Your task to perform on an android device: Show me recent news Image 0: 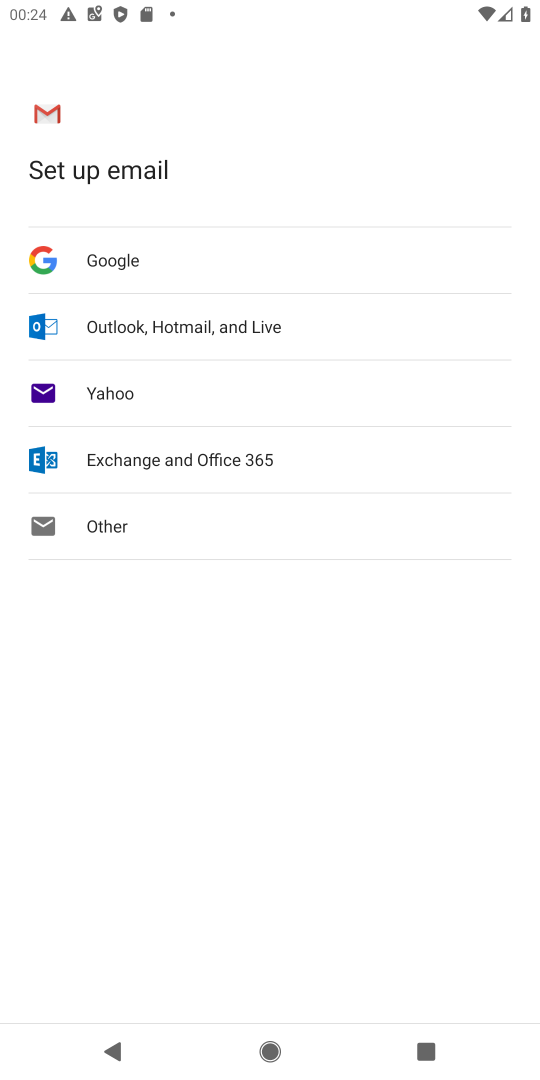
Step 0: press home button
Your task to perform on an android device: Show me recent news Image 1: 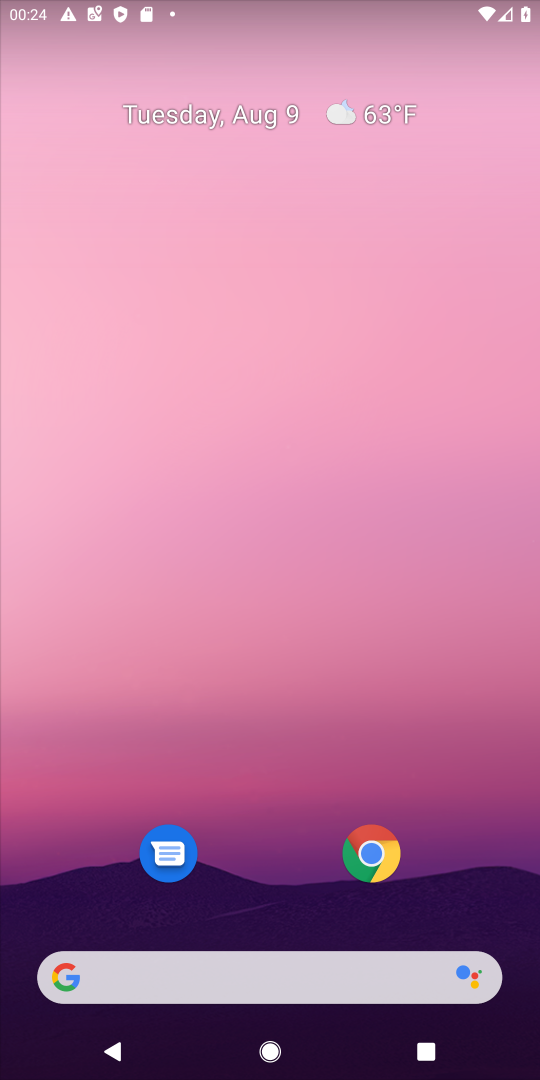
Step 1: click (260, 962)
Your task to perform on an android device: Show me recent news Image 2: 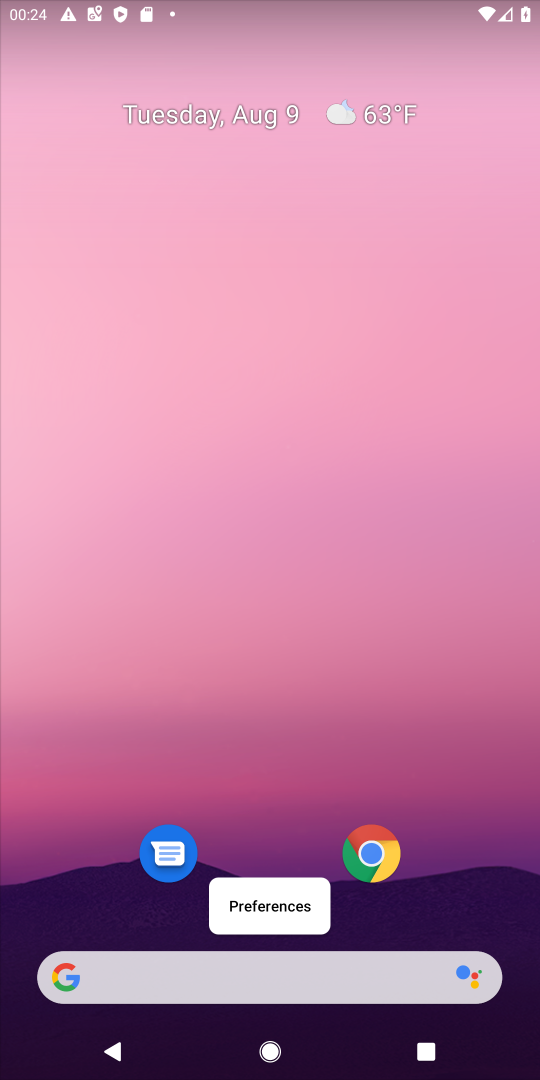
Step 2: click (260, 962)
Your task to perform on an android device: Show me recent news Image 3: 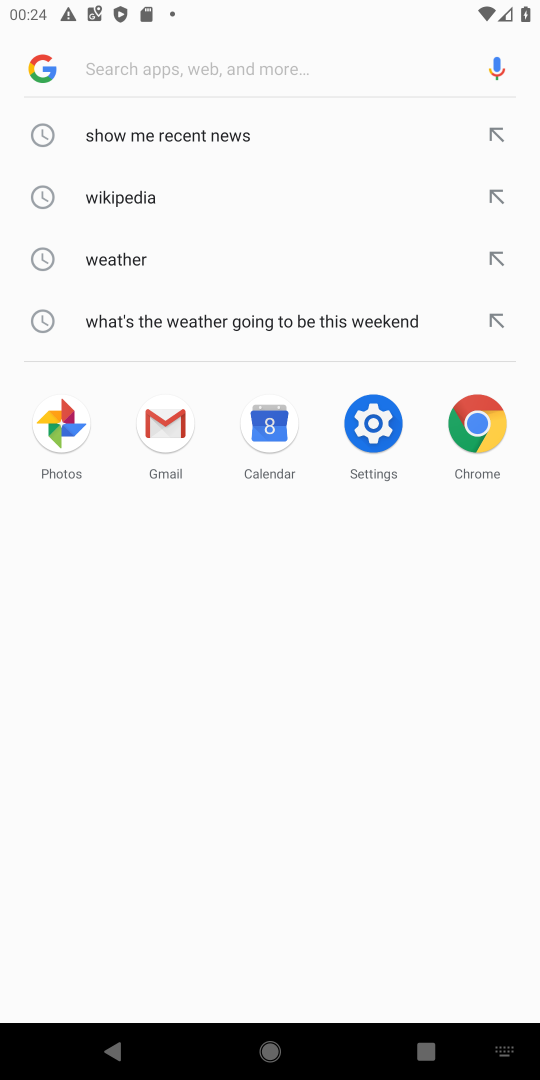
Step 3: type "recent news"
Your task to perform on an android device: Show me recent news Image 4: 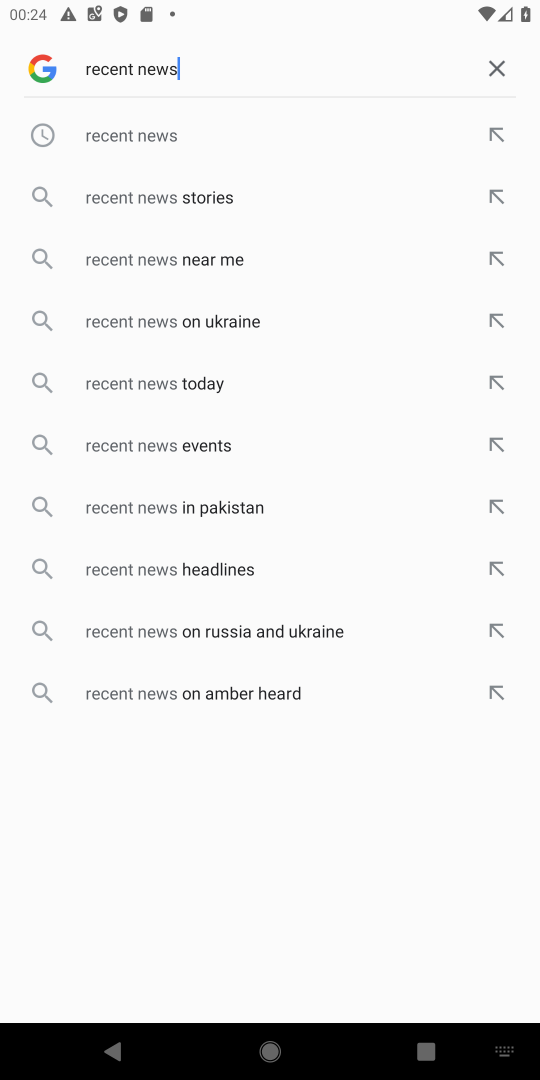
Step 4: click (189, 137)
Your task to perform on an android device: Show me recent news Image 5: 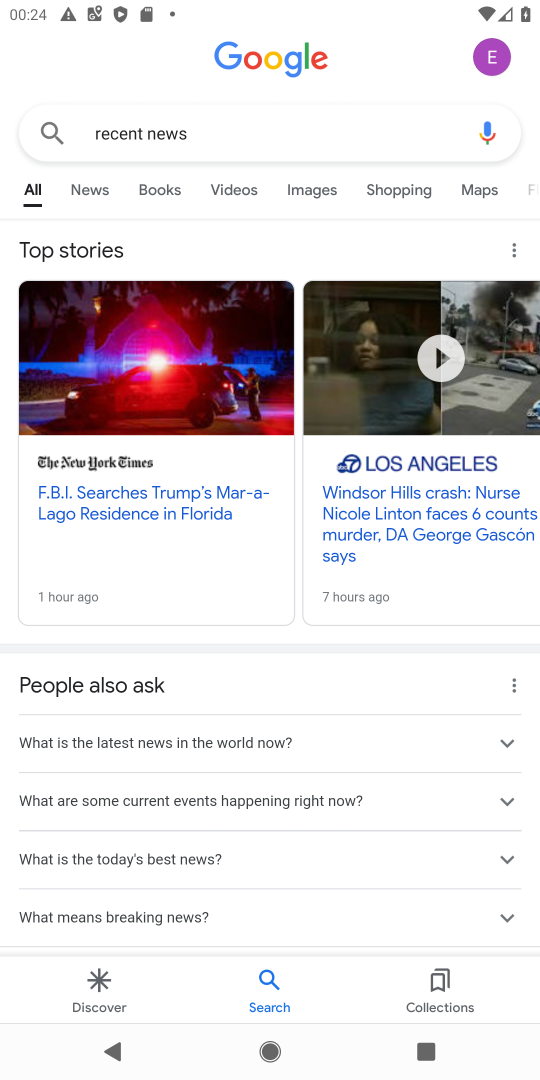
Step 5: task complete